Your task to perform on an android device: When is my next appointment? Image 0: 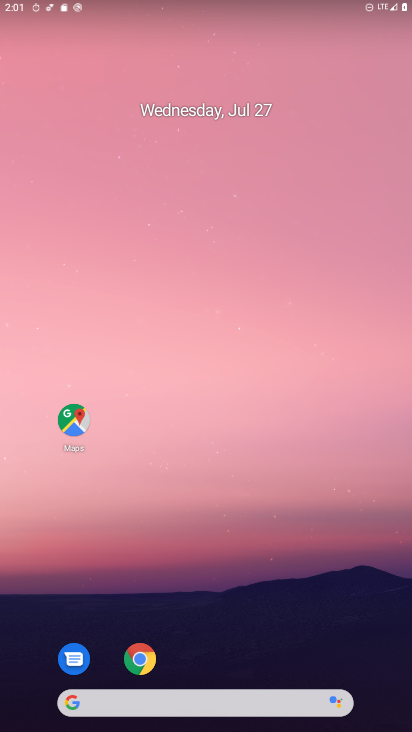
Step 0: drag from (291, 613) to (203, 99)
Your task to perform on an android device: When is my next appointment? Image 1: 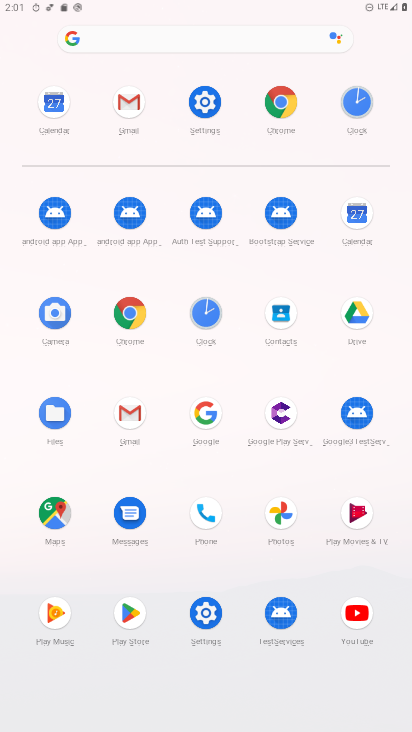
Step 1: click (358, 214)
Your task to perform on an android device: When is my next appointment? Image 2: 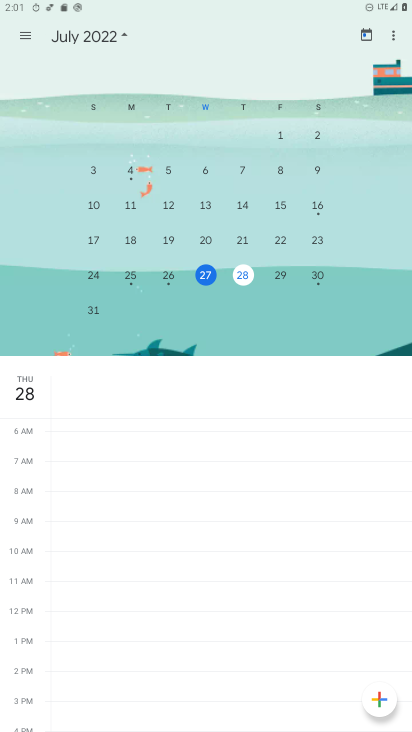
Step 2: click (29, 35)
Your task to perform on an android device: When is my next appointment? Image 3: 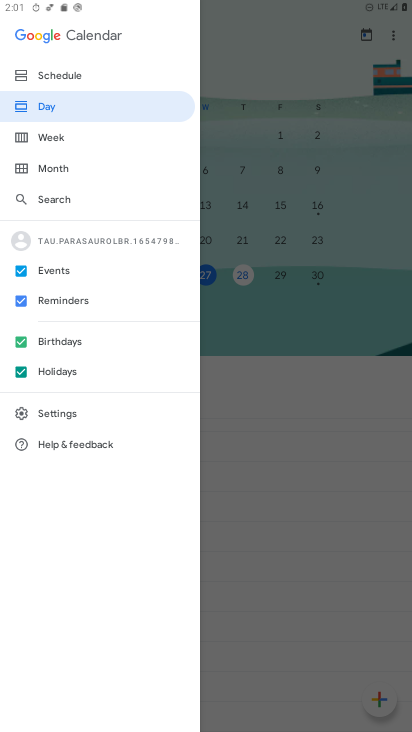
Step 3: click (68, 143)
Your task to perform on an android device: When is my next appointment? Image 4: 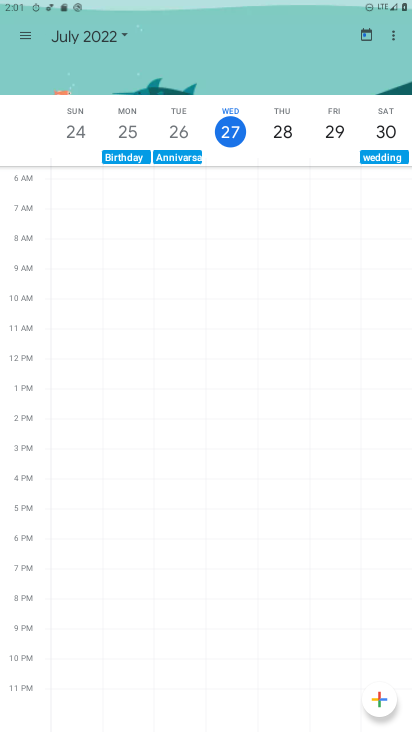
Step 4: task complete